Your task to perform on an android device: uninstall "Facebook" Image 0: 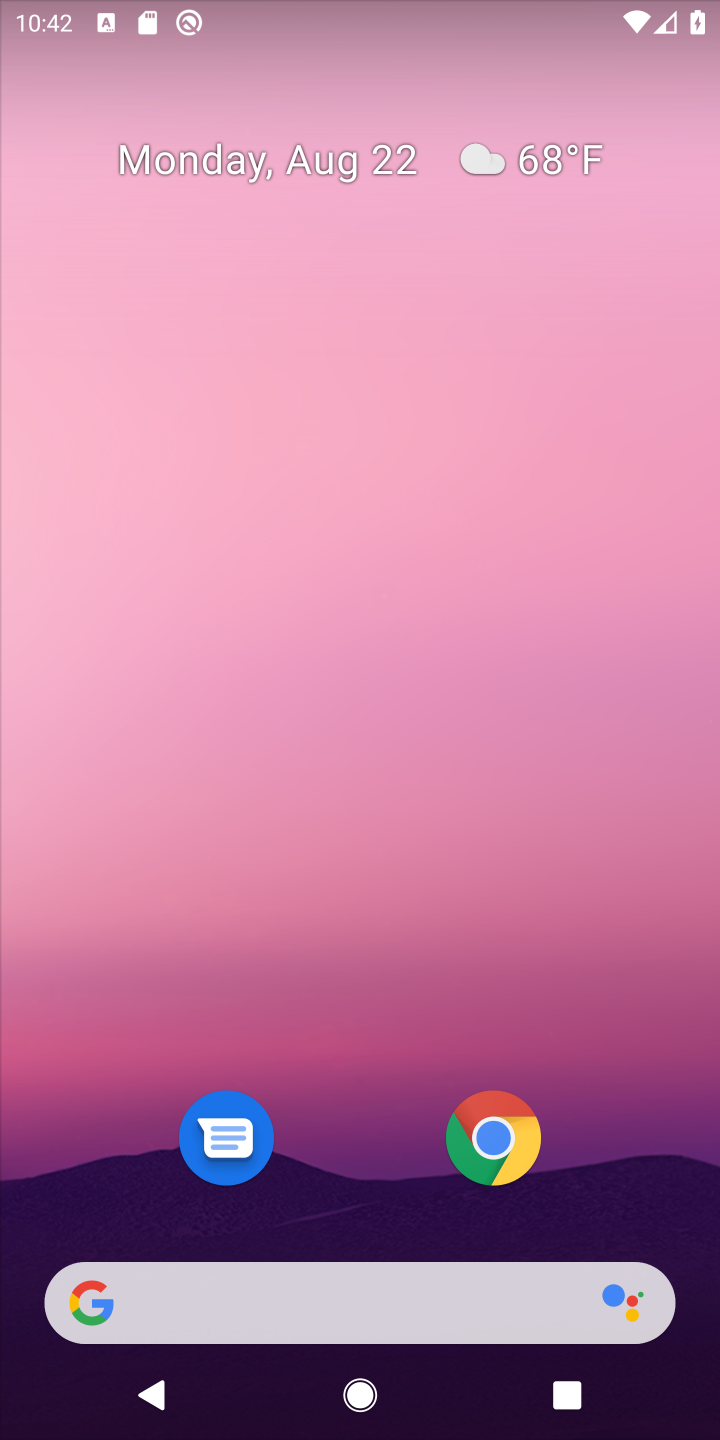
Step 0: drag from (371, 1218) to (385, 118)
Your task to perform on an android device: uninstall "Facebook" Image 1: 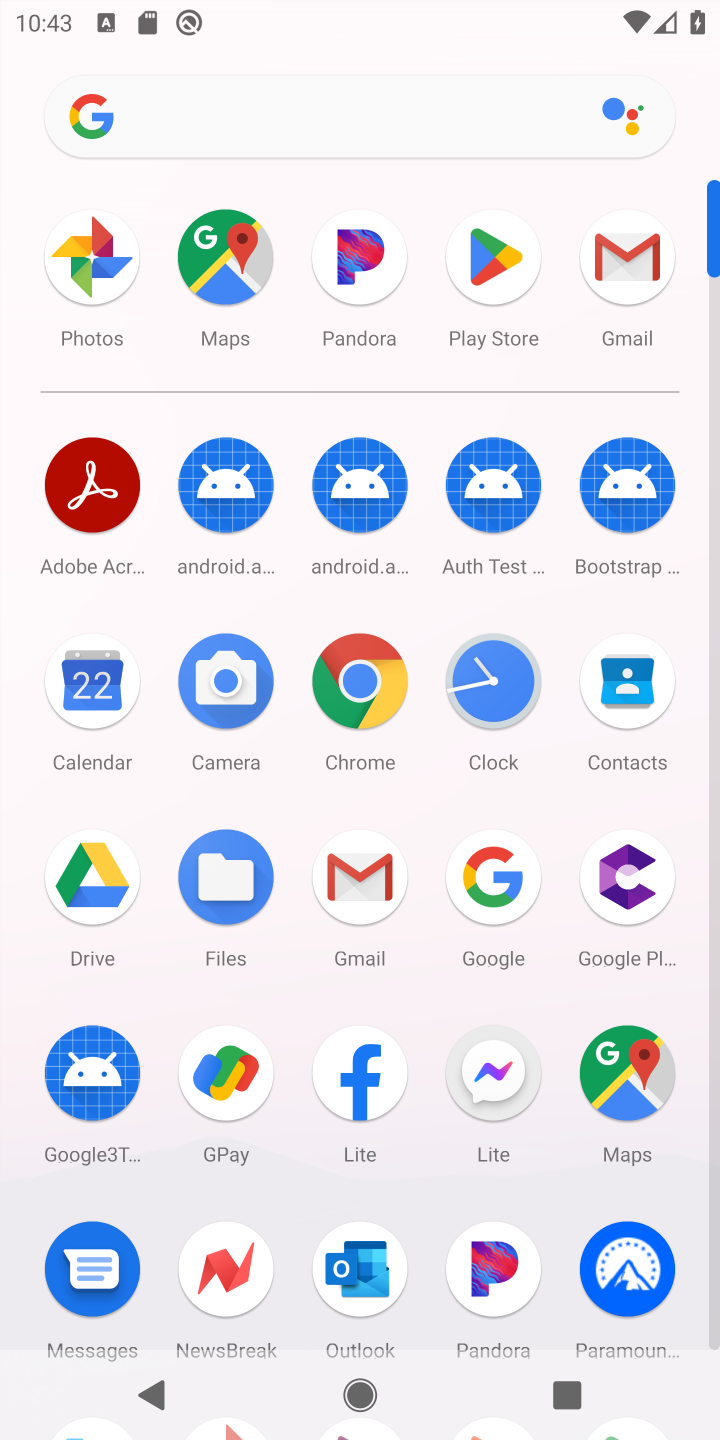
Step 1: click (510, 247)
Your task to perform on an android device: uninstall "Facebook" Image 2: 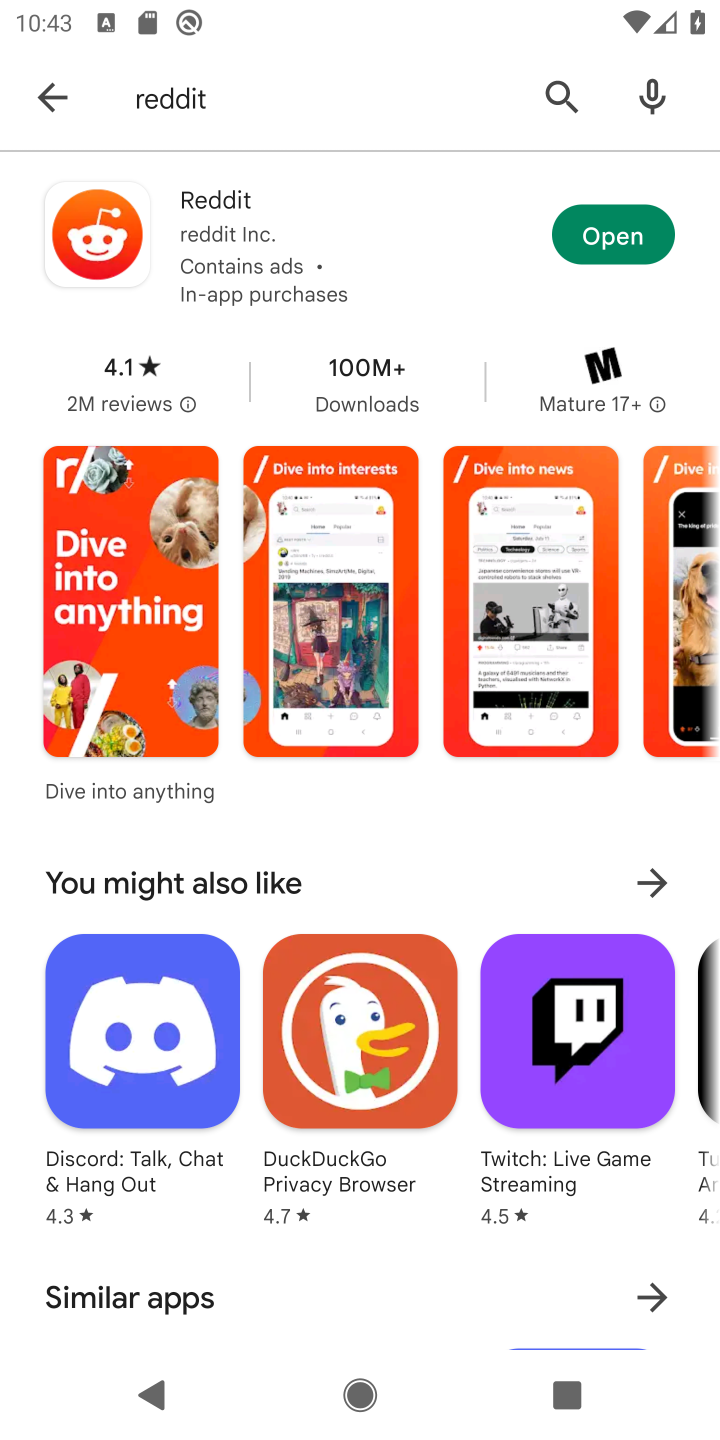
Step 2: click (552, 92)
Your task to perform on an android device: uninstall "Facebook" Image 3: 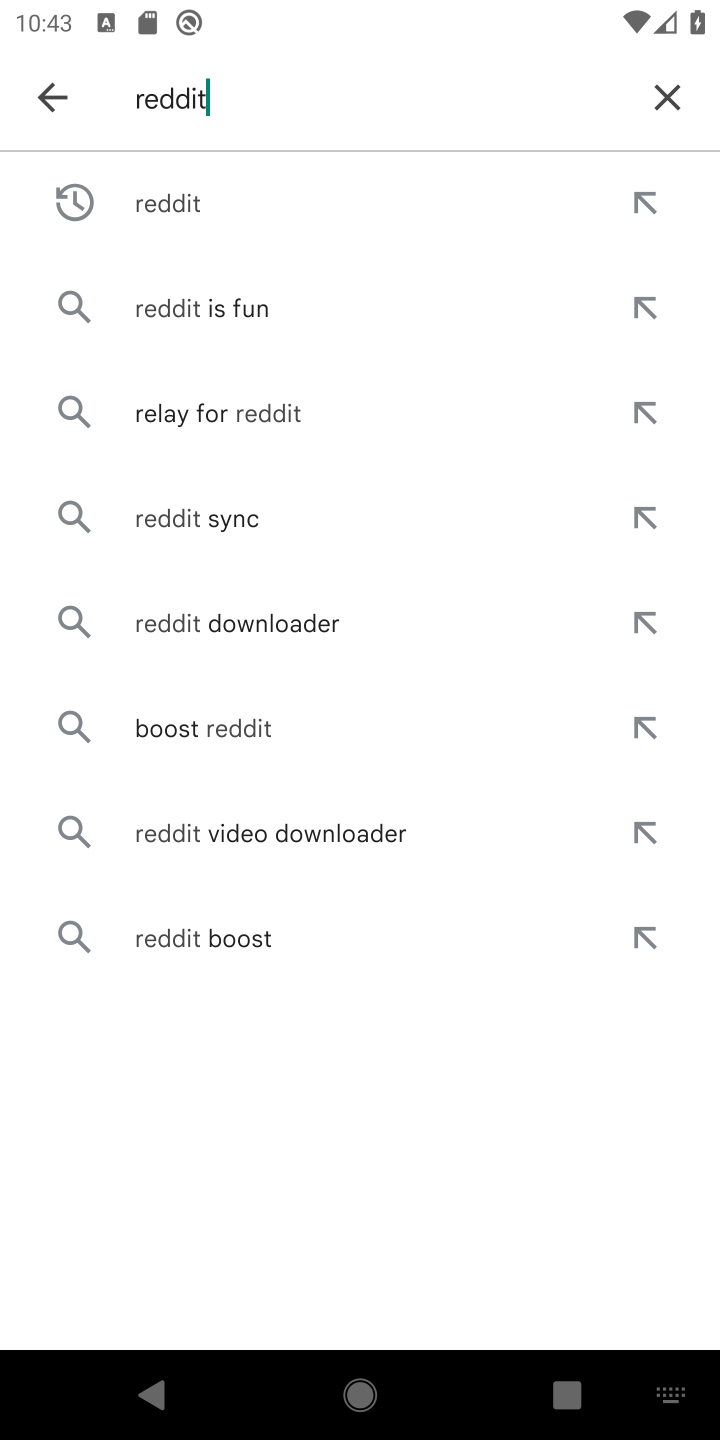
Step 3: click (667, 97)
Your task to perform on an android device: uninstall "Facebook" Image 4: 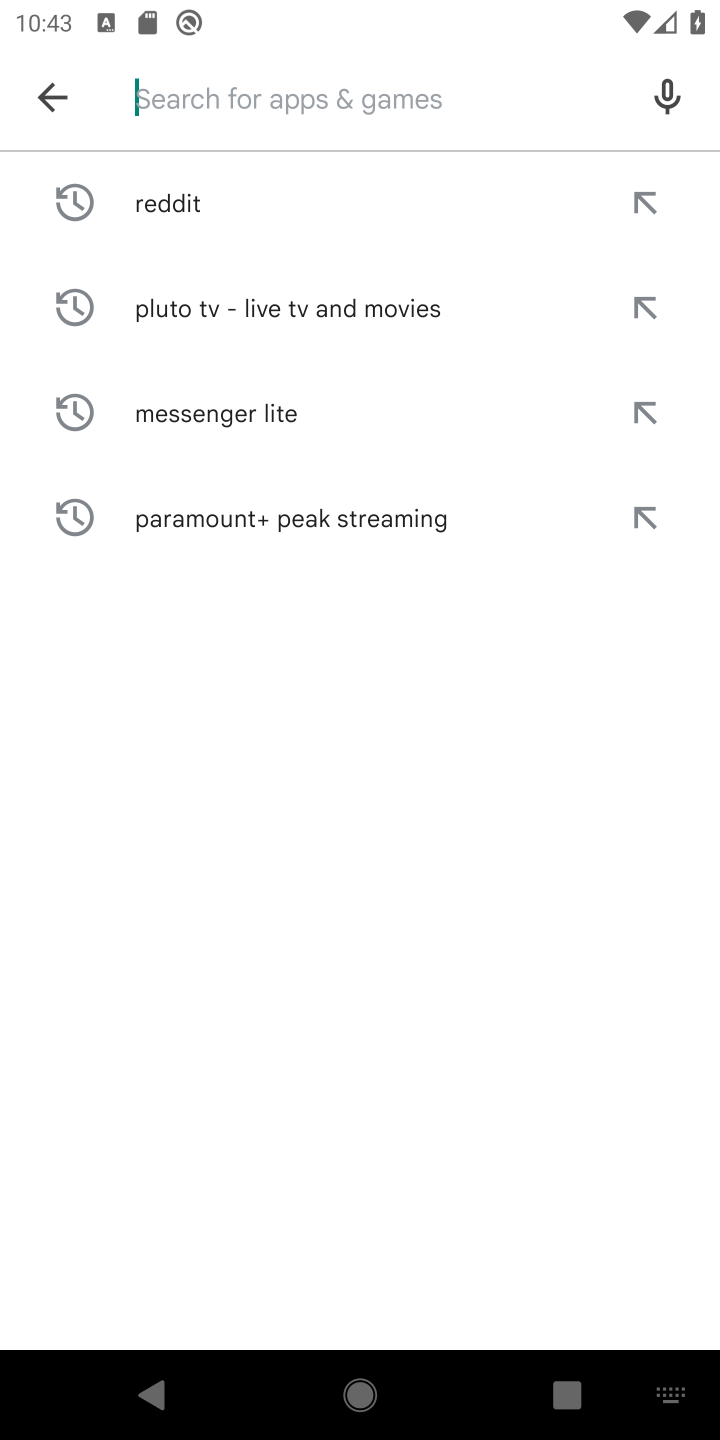
Step 4: type "Facebook"
Your task to perform on an android device: uninstall "Facebook" Image 5: 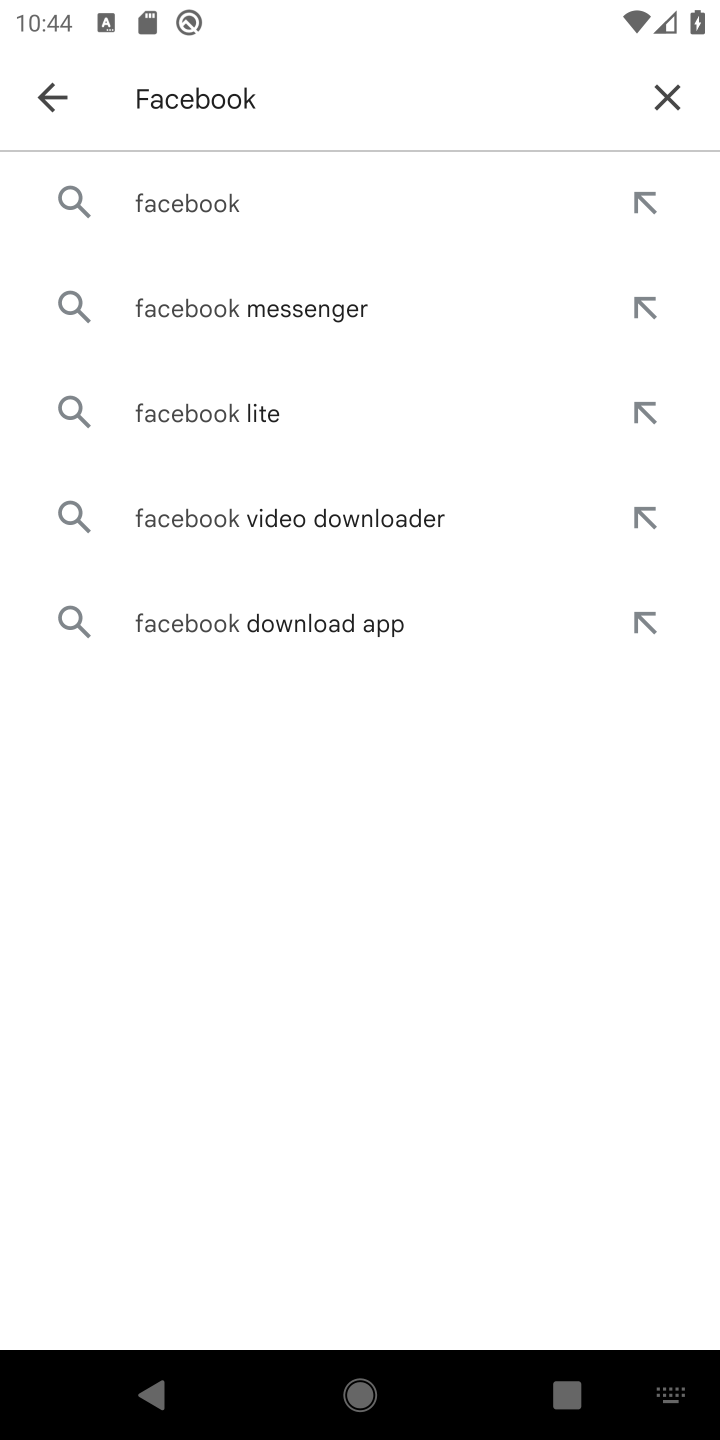
Step 5: click (149, 199)
Your task to perform on an android device: uninstall "Facebook" Image 6: 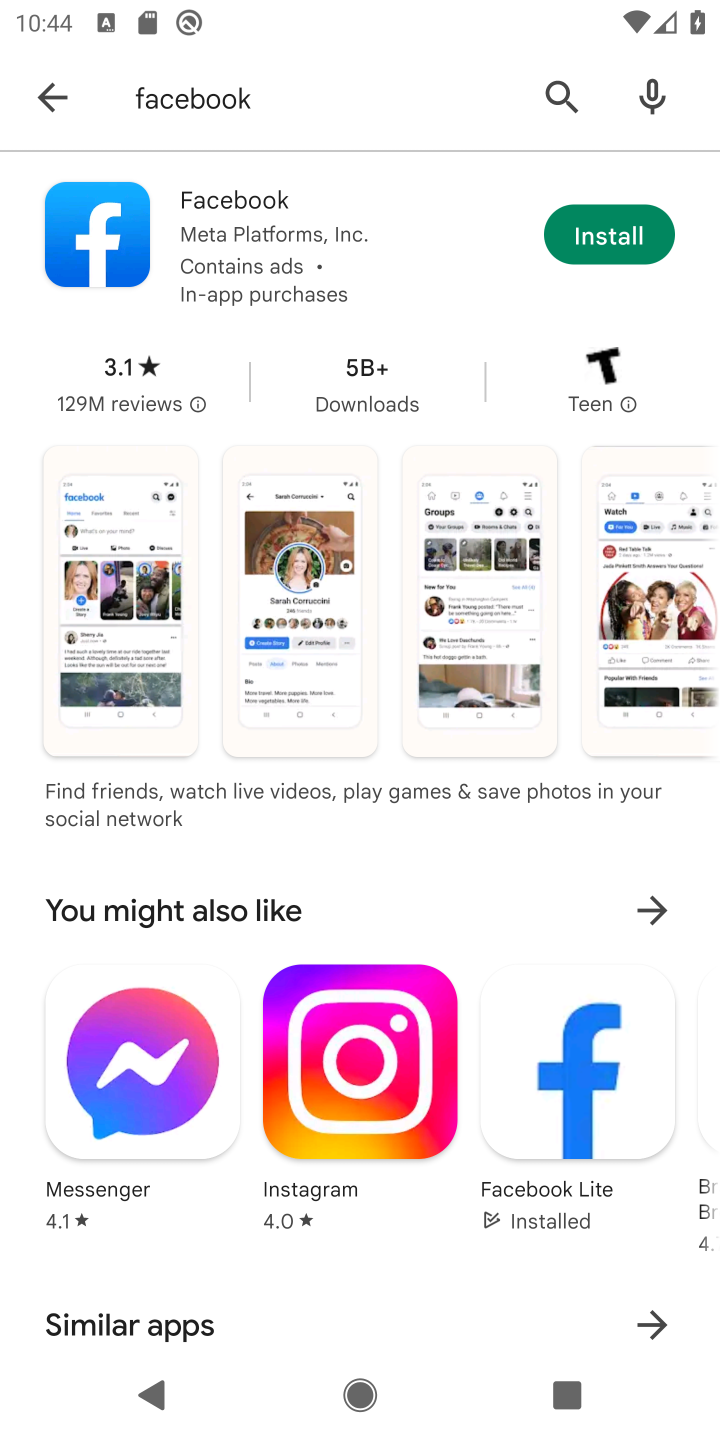
Step 6: task complete